Your task to perform on an android device: change notification settings in the gmail app Image 0: 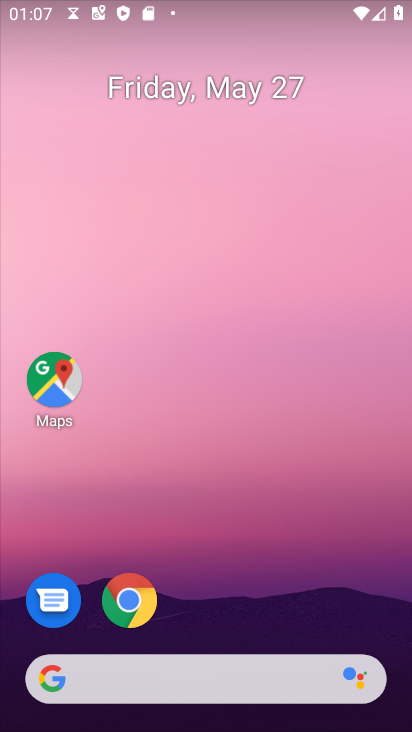
Step 0: click (136, 596)
Your task to perform on an android device: change notification settings in the gmail app Image 1: 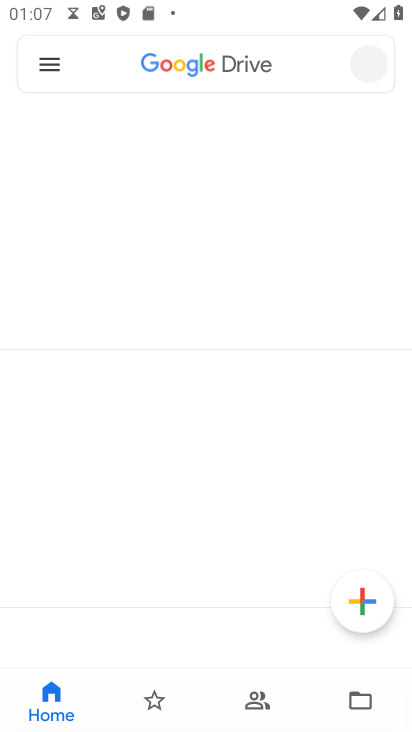
Step 1: press home button
Your task to perform on an android device: change notification settings in the gmail app Image 2: 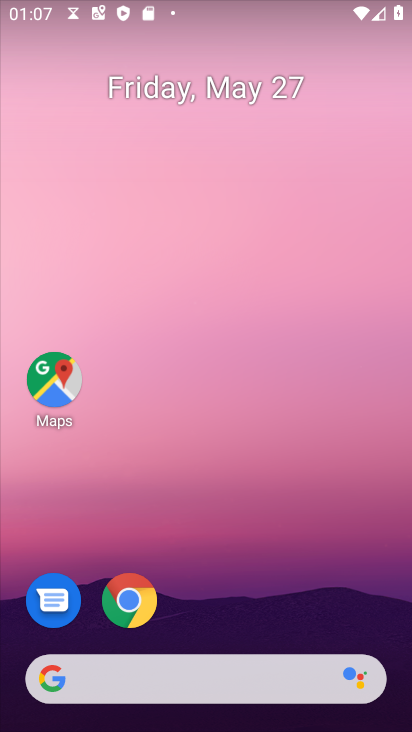
Step 2: drag from (282, 529) to (334, 13)
Your task to perform on an android device: change notification settings in the gmail app Image 3: 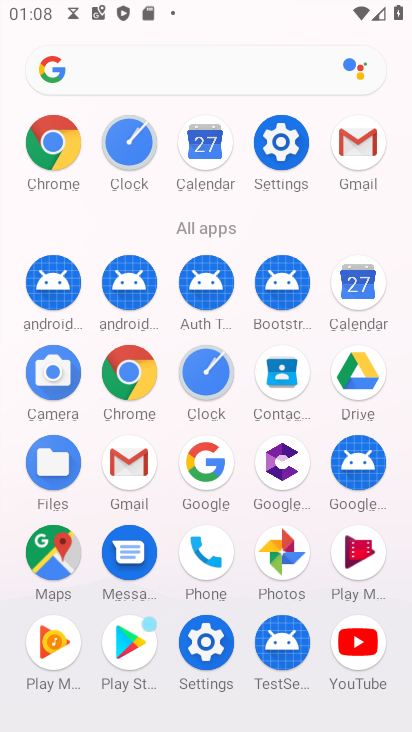
Step 3: click (354, 154)
Your task to perform on an android device: change notification settings in the gmail app Image 4: 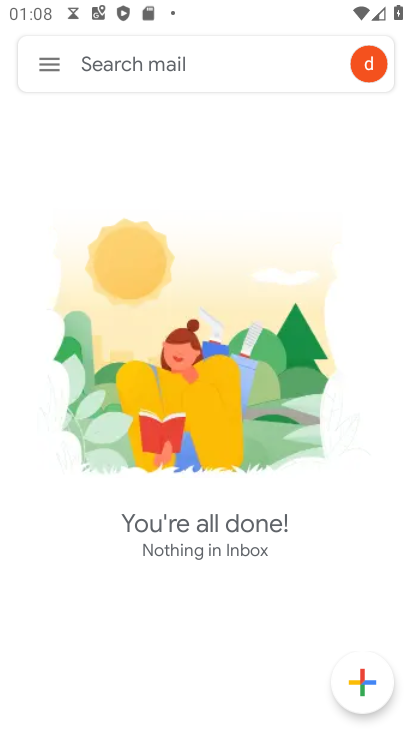
Step 4: click (60, 72)
Your task to perform on an android device: change notification settings in the gmail app Image 5: 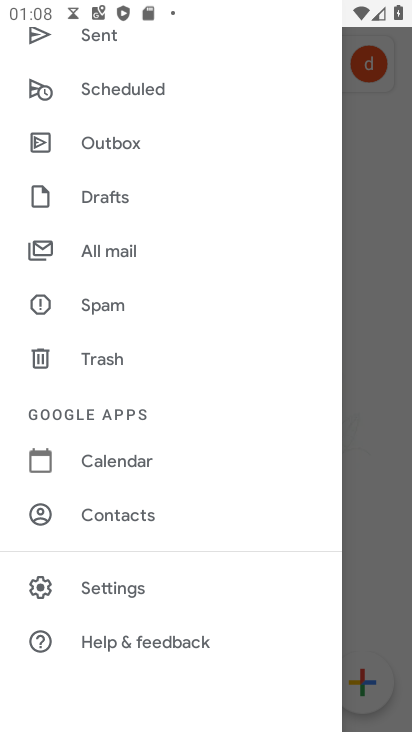
Step 5: click (172, 561)
Your task to perform on an android device: change notification settings in the gmail app Image 6: 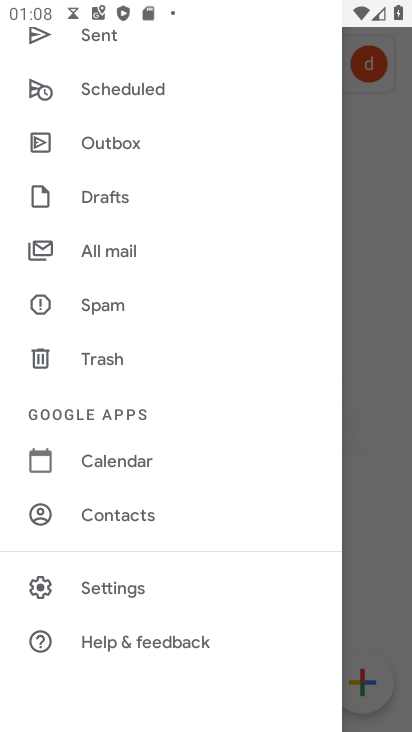
Step 6: click (138, 572)
Your task to perform on an android device: change notification settings in the gmail app Image 7: 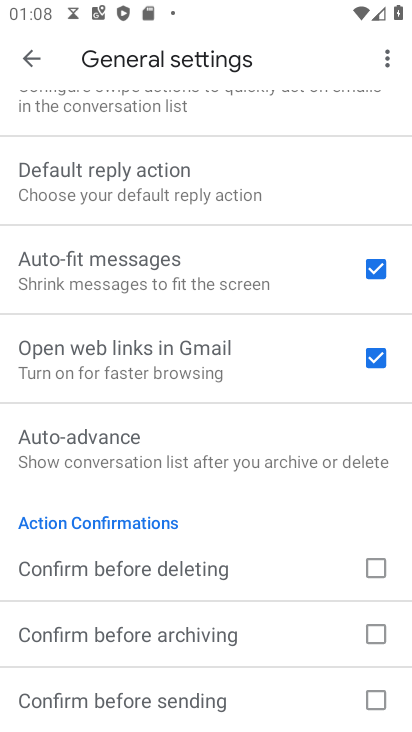
Step 7: drag from (195, 208) to (175, 546)
Your task to perform on an android device: change notification settings in the gmail app Image 8: 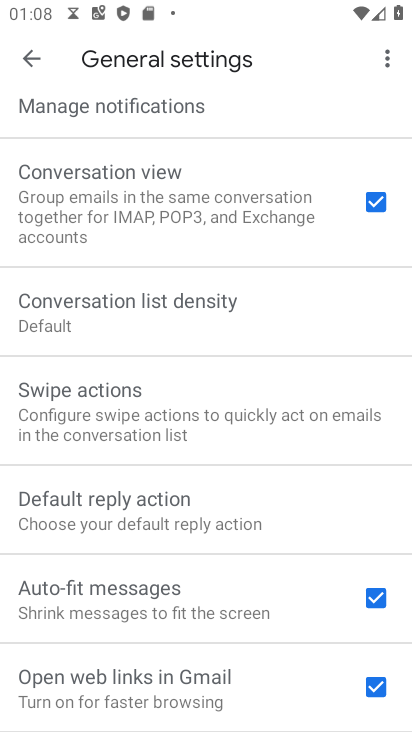
Step 8: drag from (221, 259) to (235, 694)
Your task to perform on an android device: change notification settings in the gmail app Image 9: 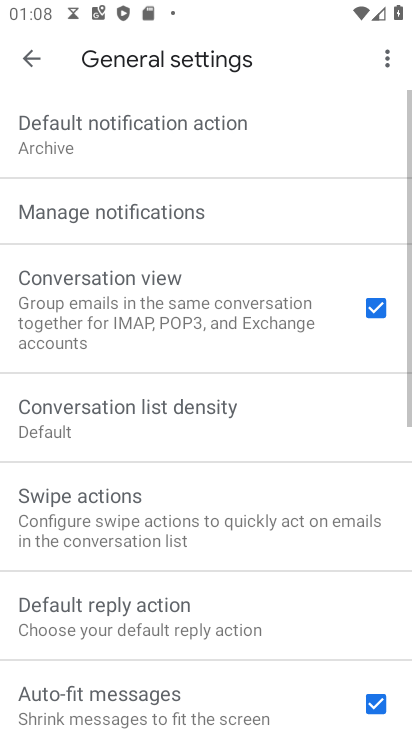
Step 9: click (207, 210)
Your task to perform on an android device: change notification settings in the gmail app Image 10: 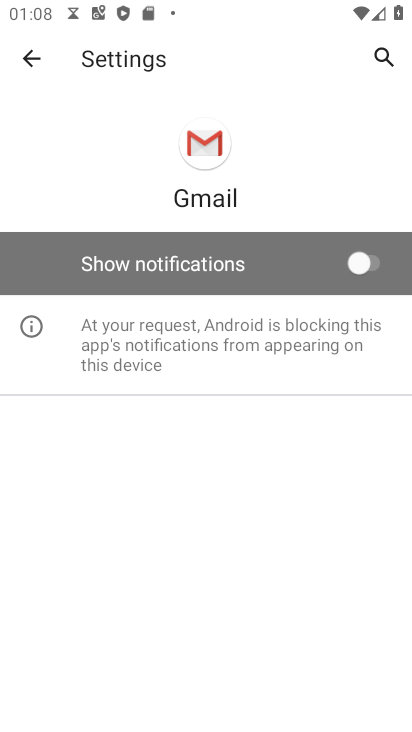
Step 10: click (370, 264)
Your task to perform on an android device: change notification settings in the gmail app Image 11: 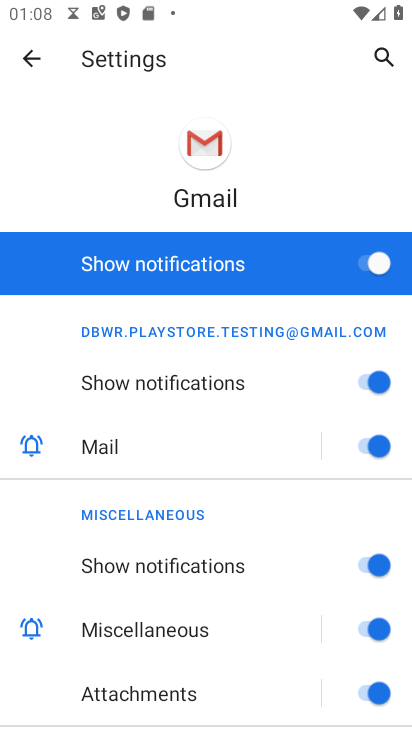
Step 11: drag from (176, 623) to (183, 233)
Your task to perform on an android device: change notification settings in the gmail app Image 12: 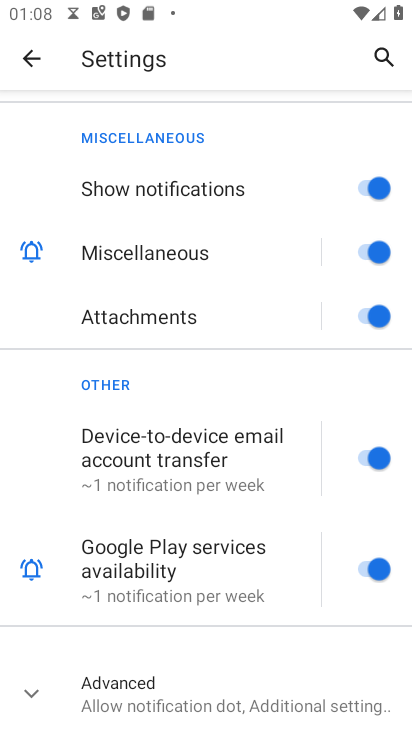
Step 12: click (365, 453)
Your task to perform on an android device: change notification settings in the gmail app Image 13: 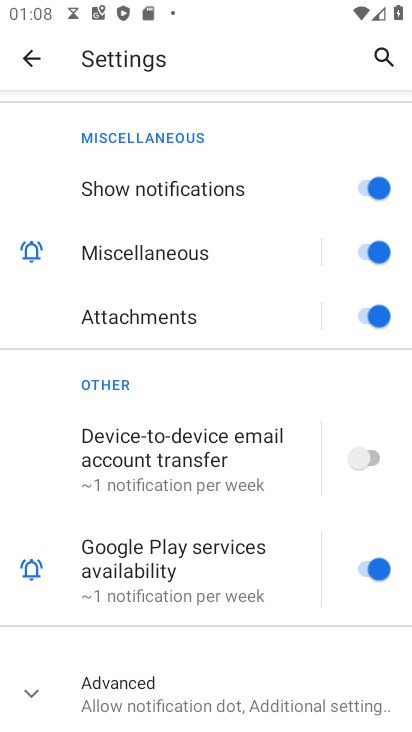
Step 13: click (390, 186)
Your task to perform on an android device: change notification settings in the gmail app Image 14: 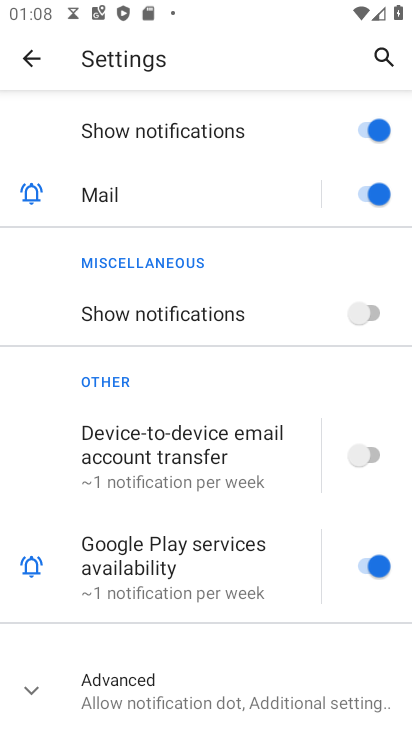
Step 14: task complete